Your task to perform on an android device: Open maps Image 0: 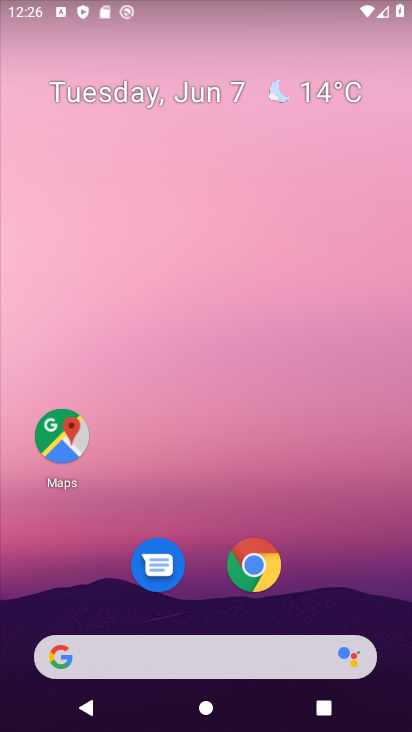
Step 0: drag from (208, 495) to (308, 8)
Your task to perform on an android device: Open maps Image 1: 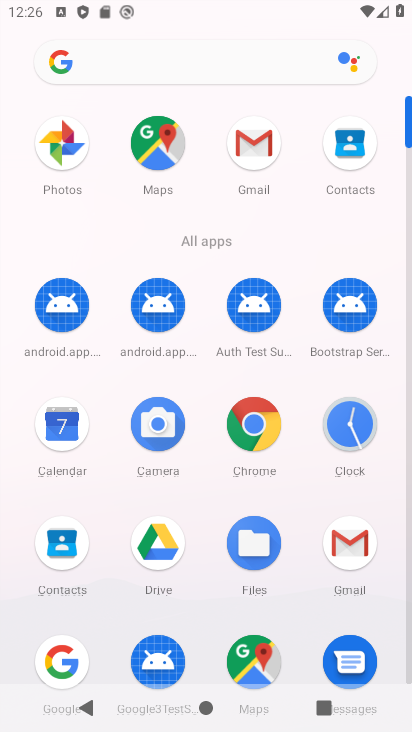
Step 1: click (243, 658)
Your task to perform on an android device: Open maps Image 2: 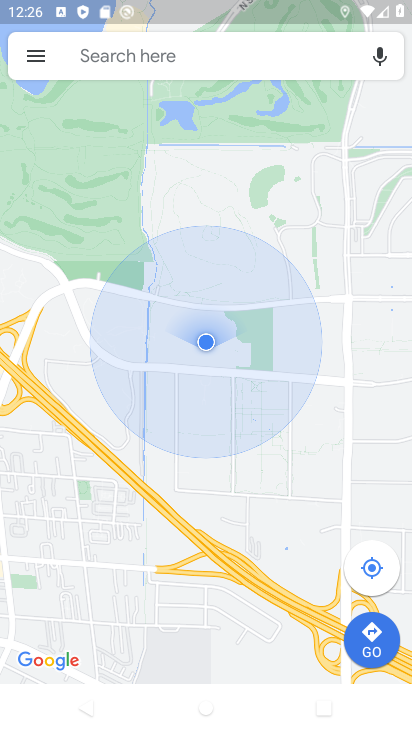
Step 2: task complete